Your task to perform on an android device: turn on wifi Image 0: 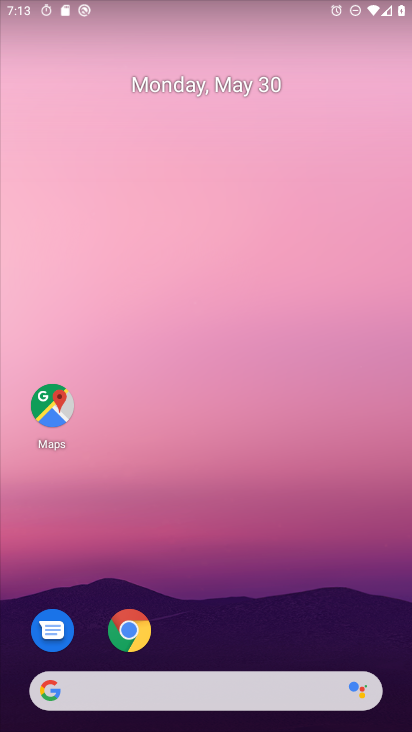
Step 0: drag from (199, 9) to (236, 519)
Your task to perform on an android device: turn on wifi Image 1: 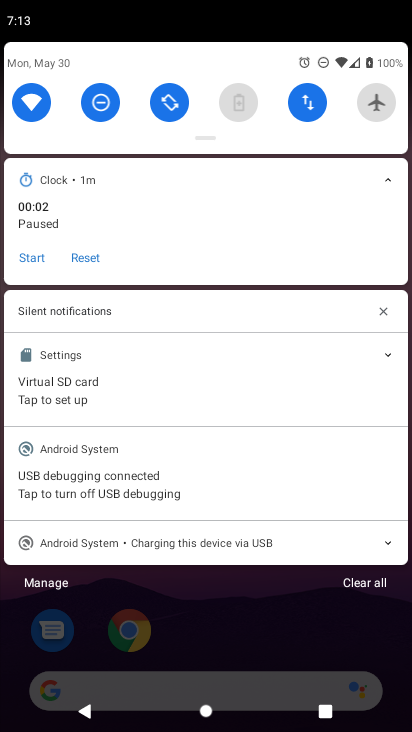
Step 1: task complete